Your task to perform on an android device: change notification settings in the gmail app Image 0: 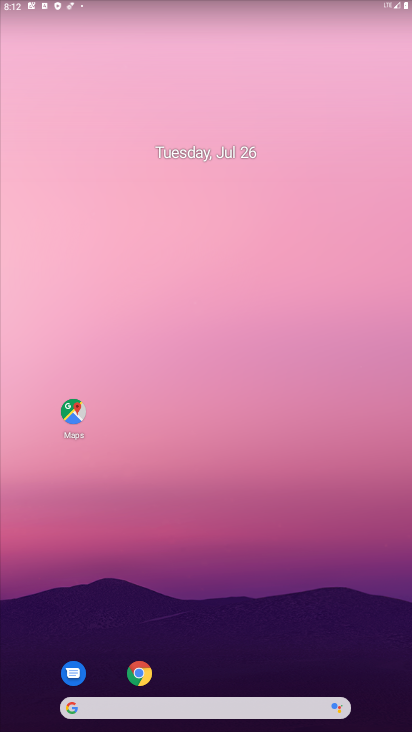
Step 0: drag from (212, 591) to (309, 148)
Your task to perform on an android device: change notification settings in the gmail app Image 1: 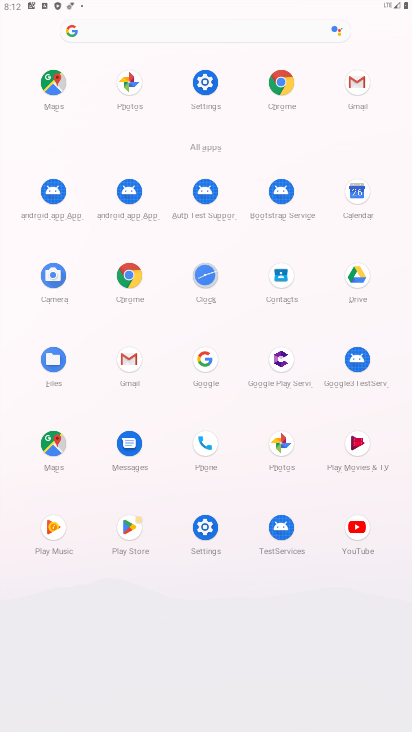
Step 1: click (347, 99)
Your task to perform on an android device: change notification settings in the gmail app Image 2: 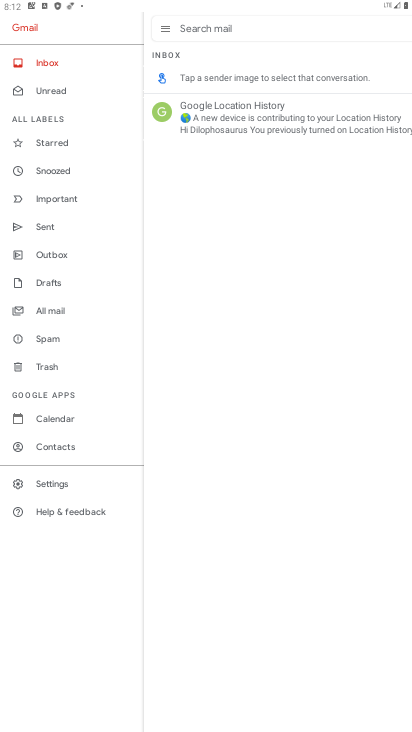
Step 2: click (52, 492)
Your task to perform on an android device: change notification settings in the gmail app Image 3: 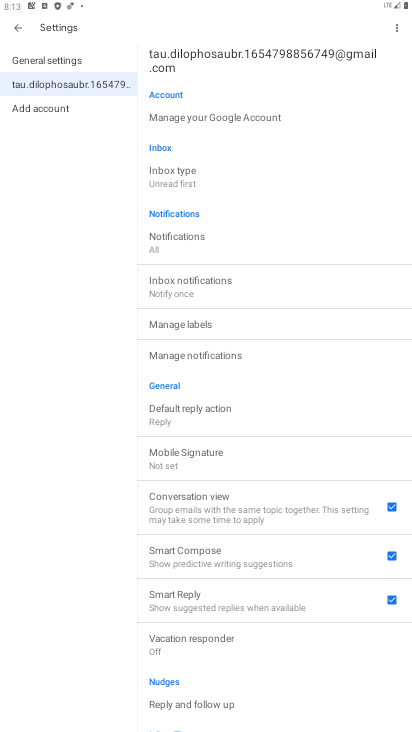
Step 3: click (244, 360)
Your task to perform on an android device: change notification settings in the gmail app Image 4: 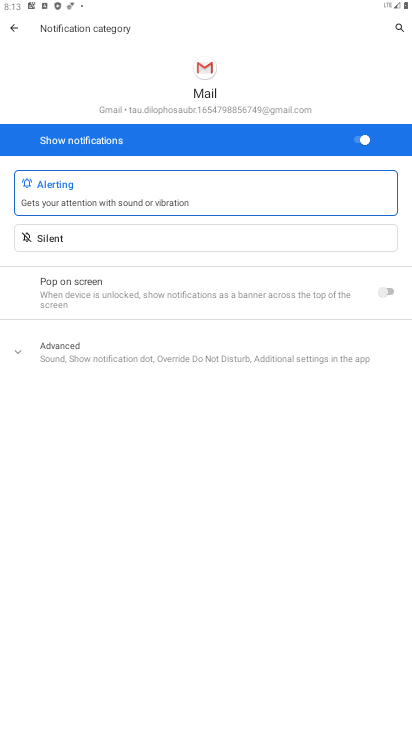
Step 4: click (352, 141)
Your task to perform on an android device: change notification settings in the gmail app Image 5: 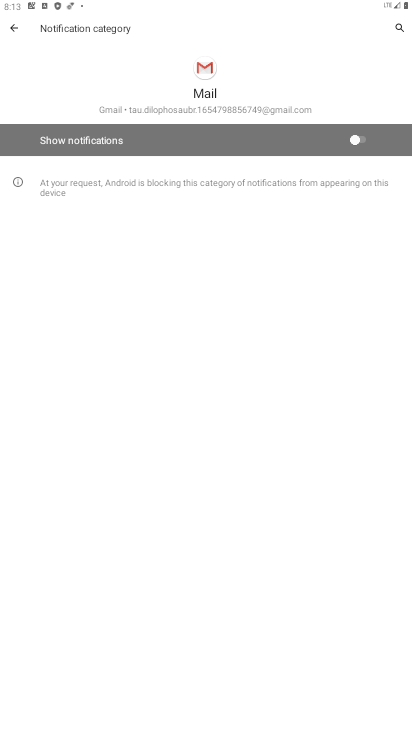
Step 5: task complete